Your task to perform on an android device: empty trash in google photos Image 0: 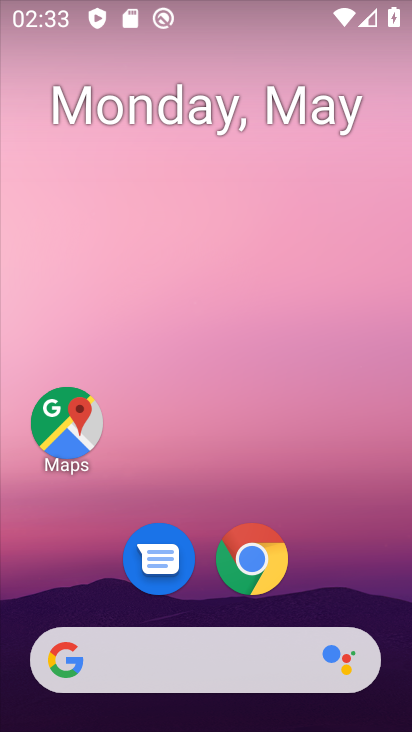
Step 0: drag from (311, 411) to (283, 2)
Your task to perform on an android device: empty trash in google photos Image 1: 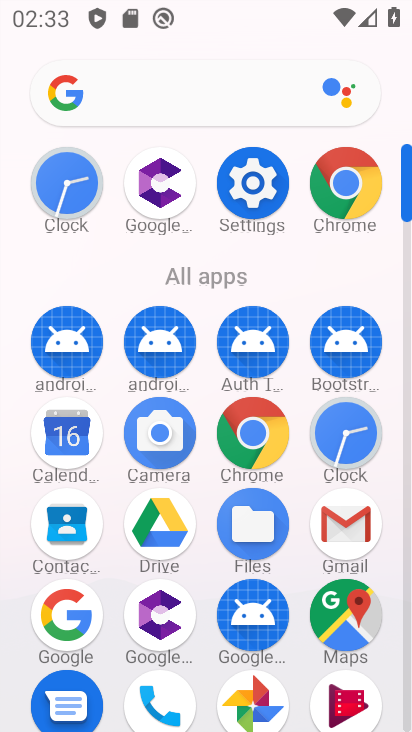
Step 1: drag from (14, 480) to (12, 221)
Your task to perform on an android device: empty trash in google photos Image 2: 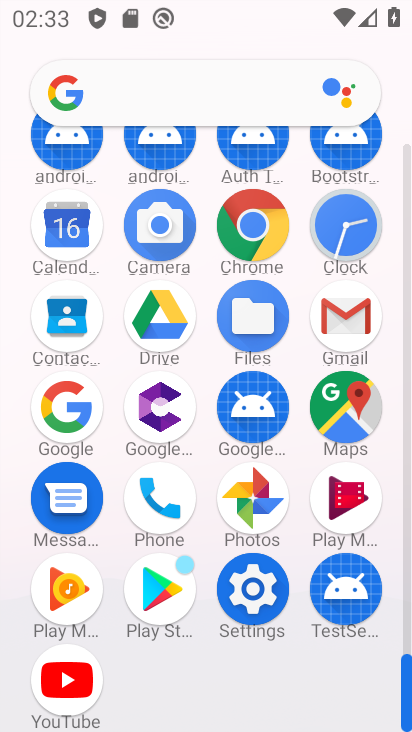
Step 2: click (250, 500)
Your task to perform on an android device: empty trash in google photos Image 3: 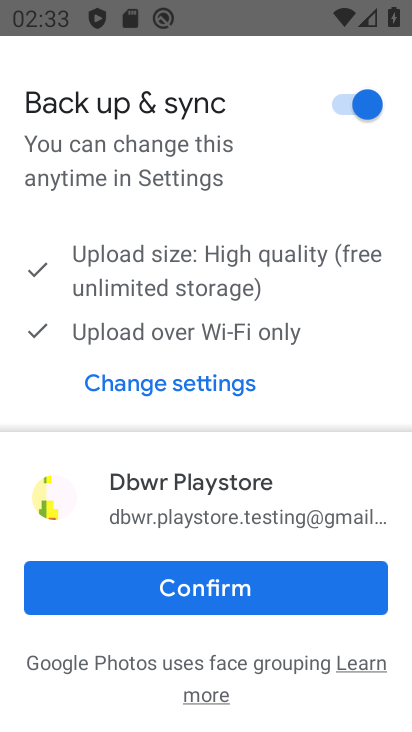
Step 3: click (195, 576)
Your task to perform on an android device: empty trash in google photos Image 4: 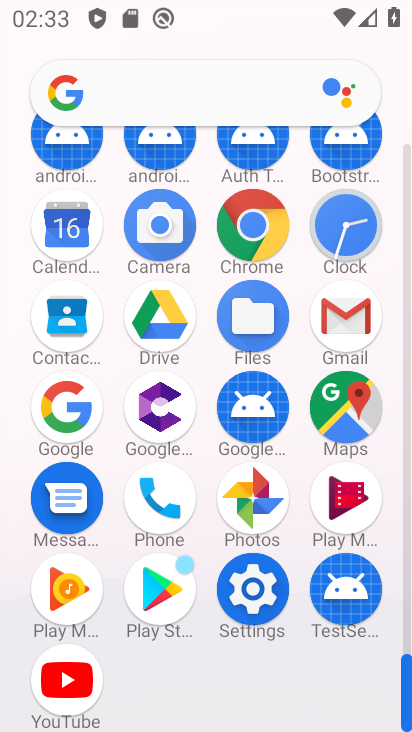
Step 4: click (247, 493)
Your task to perform on an android device: empty trash in google photos Image 5: 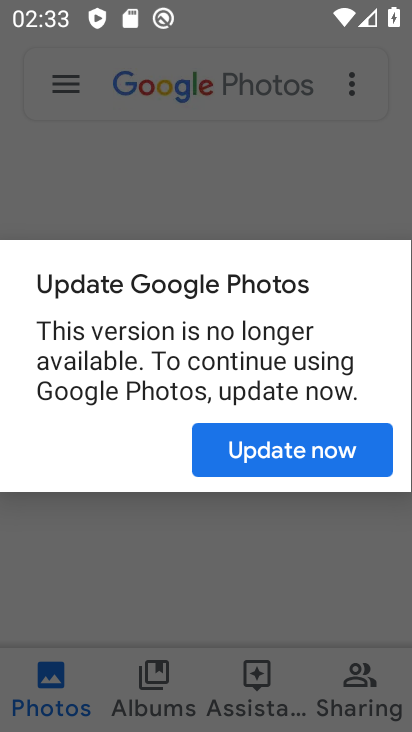
Step 5: click (66, 79)
Your task to perform on an android device: empty trash in google photos Image 6: 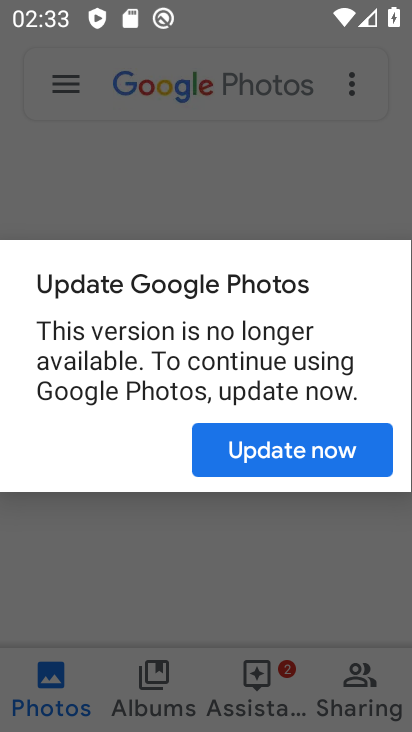
Step 6: click (275, 444)
Your task to perform on an android device: empty trash in google photos Image 7: 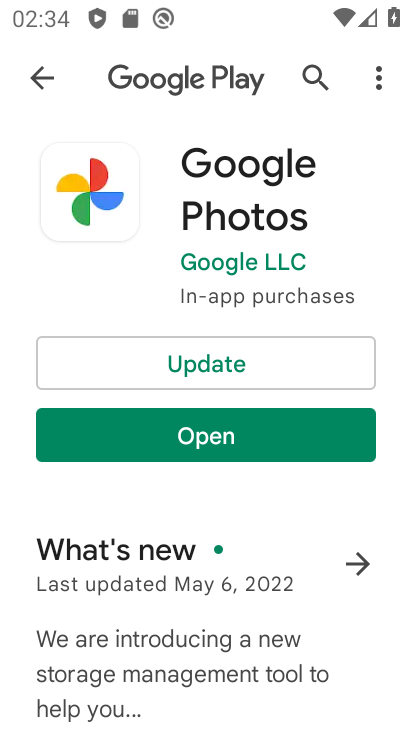
Step 7: click (231, 362)
Your task to perform on an android device: empty trash in google photos Image 8: 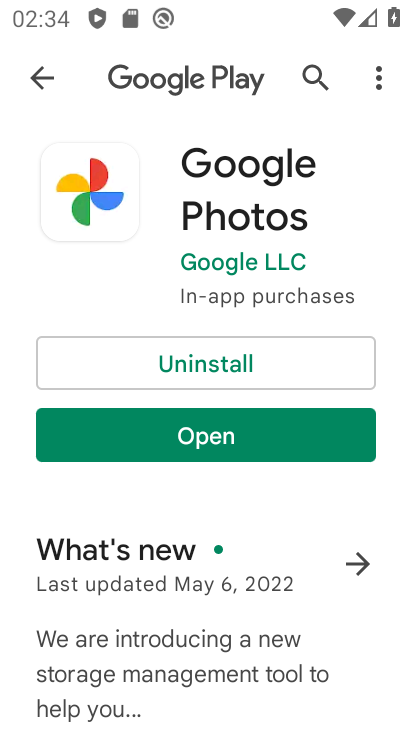
Step 8: click (223, 431)
Your task to perform on an android device: empty trash in google photos Image 9: 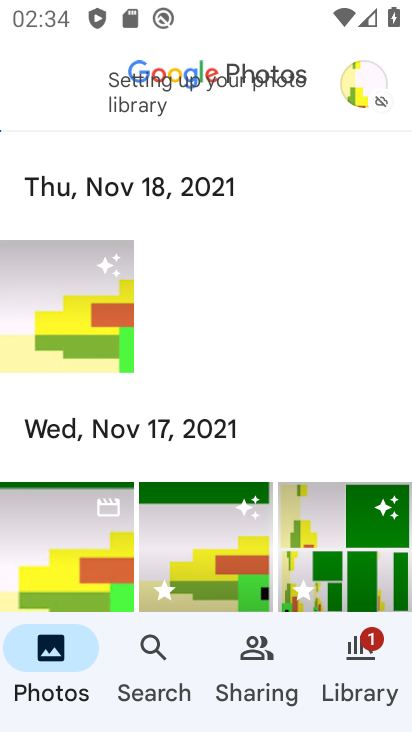
Step 9: click (361, 658)
Your task to perform on an android device: empty trash in google photos Image 10: 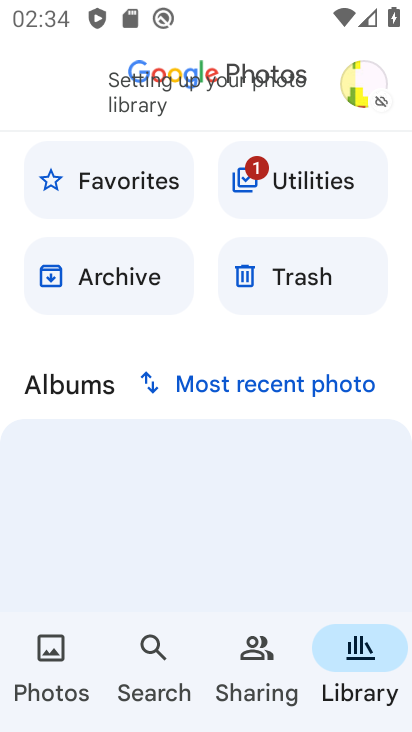
Step 10: click (277, 290)
Your task to perform on an android device: empty trash in google photos Image 11: 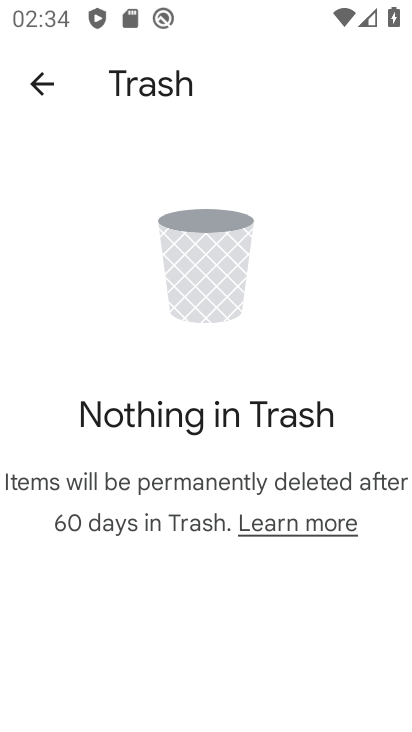
Step 11: task complete